Your task to perform on an android device: Open display settings Image 0: 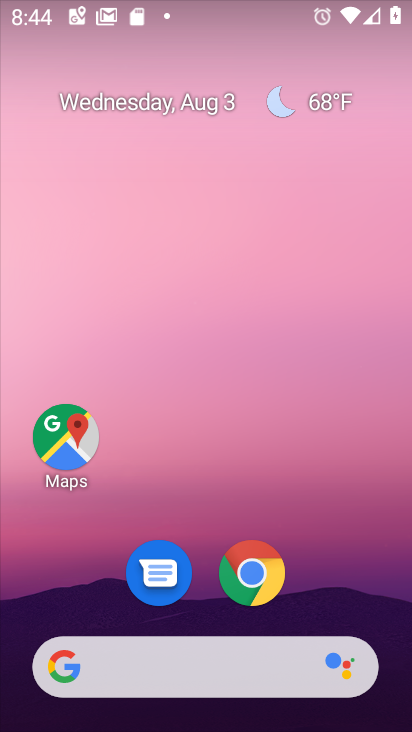
Step 0: drag from (349, 623) to (304, 0)
Your task to perform on an android device: Open display settings Image 1: 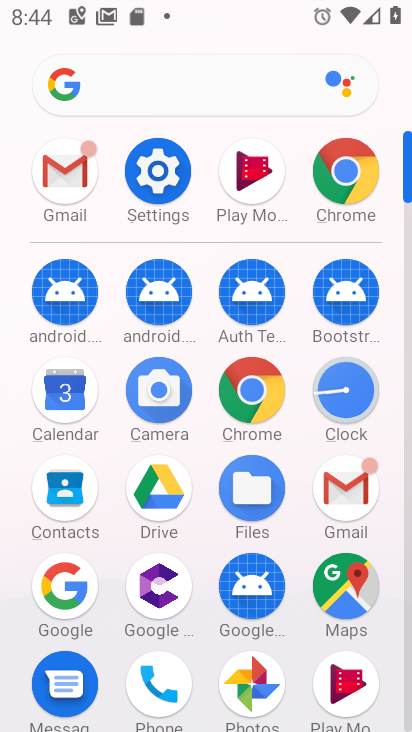
Step 1: click (154, 173)
Your task to perform on an android device: Open display settings Image 2: 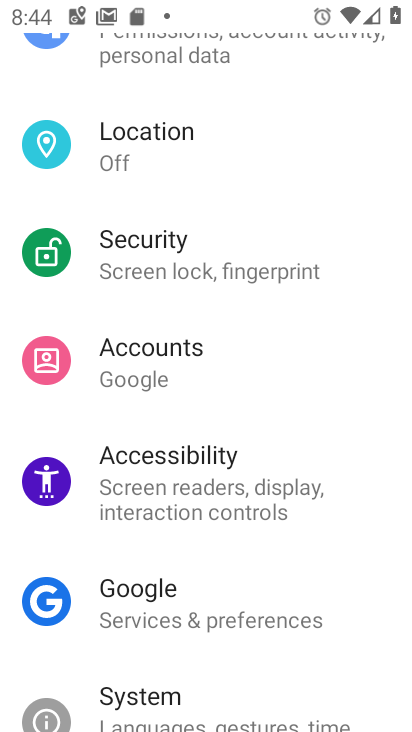
Step 2: drag from (314, 204) to (333, 611)
Your task to perform on an android device: Open display settings Image 3: 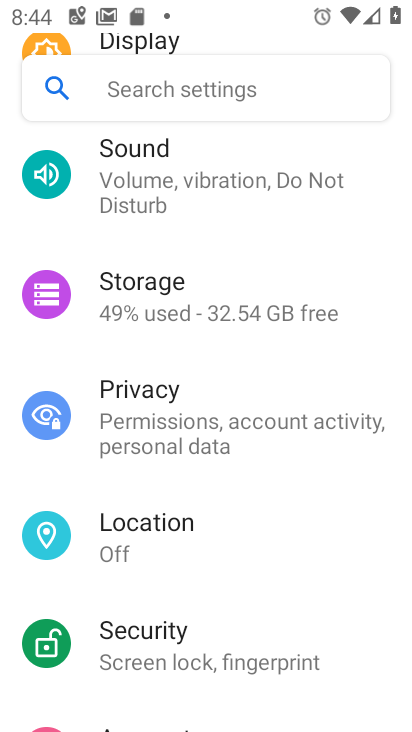
Step 3: drag from (324, 240) to (363, 563)
Your task to perform on an android device: Open display settings Image 4: 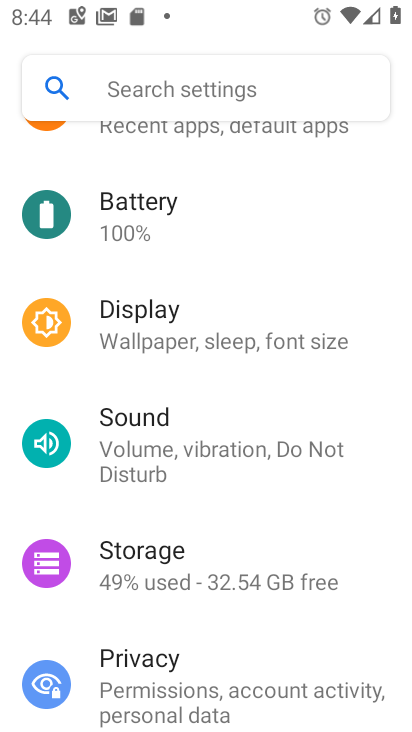
Step 4: click (158, 335)
Your task to perform on an android device: Open display settings Image 5: 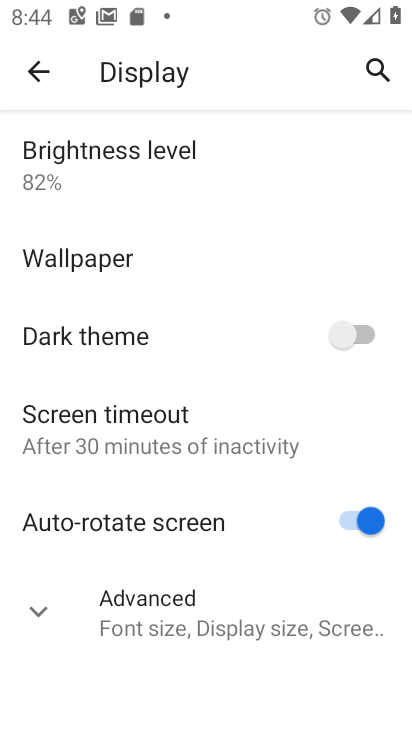
Step 5: task complete